Your task to perform on an android device: toggle improve location accuracy Image 0: 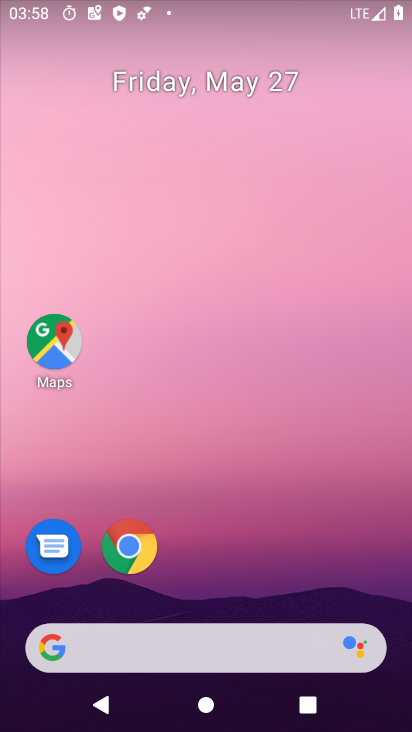
Step 0: drag from (385, 600) to (329, 167)
Your task to perform on an android device: toggle improve location accuracy Image 1: 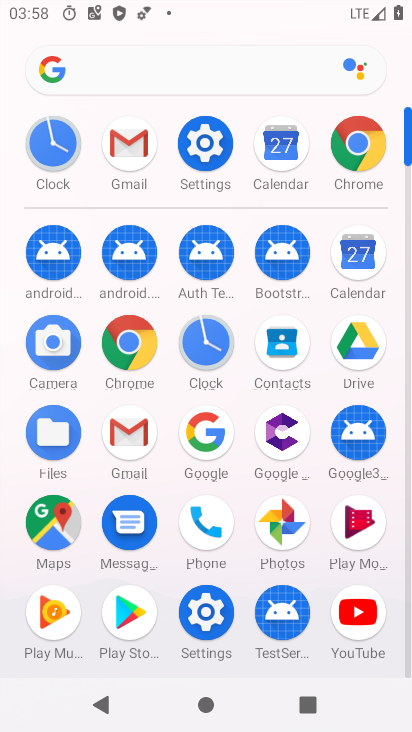
Step 1: click (207, 156)
Your task to perform on an android device: toggle improve location accuracy Image 2: 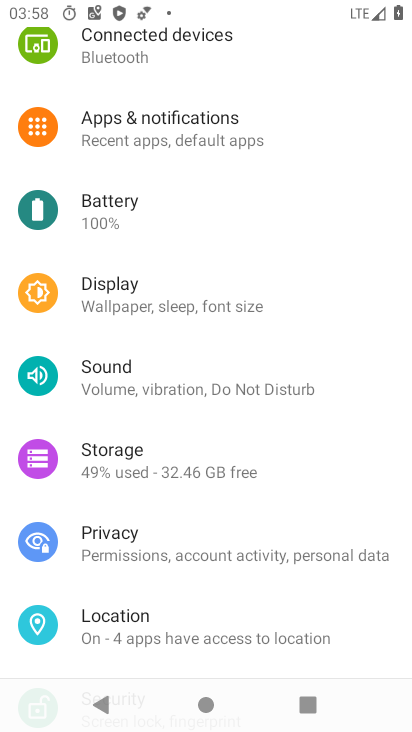
Step 2: click (115, 611)
Your task to perform on an android device: toggle improve location accuracy Image 3: 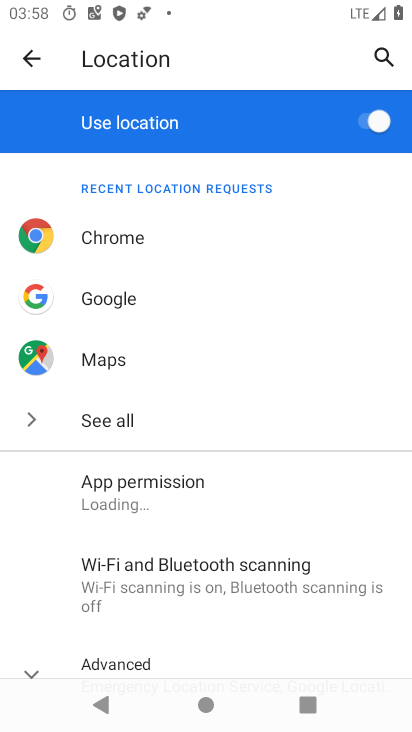
Step 3: drag from (313, 627) to (288, 282)
Your task to perform on an android device: toggle improve location accuracy Image 4: 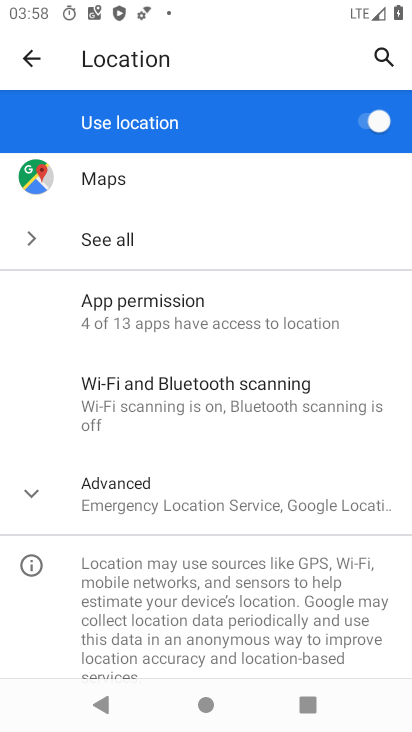
Step 4: drag from (149, 630) to (165, 366)
Your task to perform on an android device: toggle improve location accuracy Image 5: 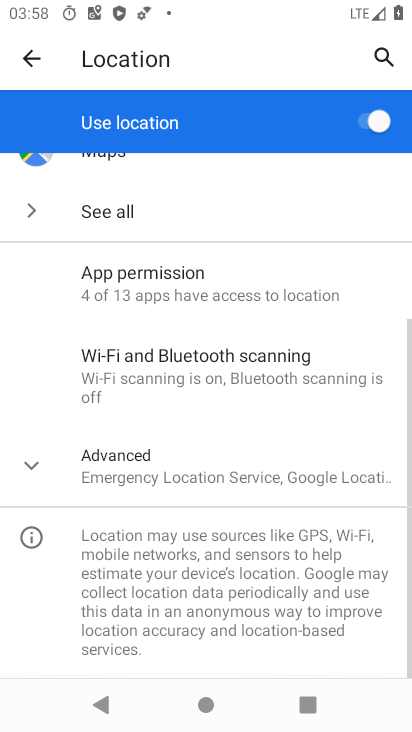
Step 5: click (34, 490)
Your task to perform on an android device: toggle improve location accuracy Image 6: 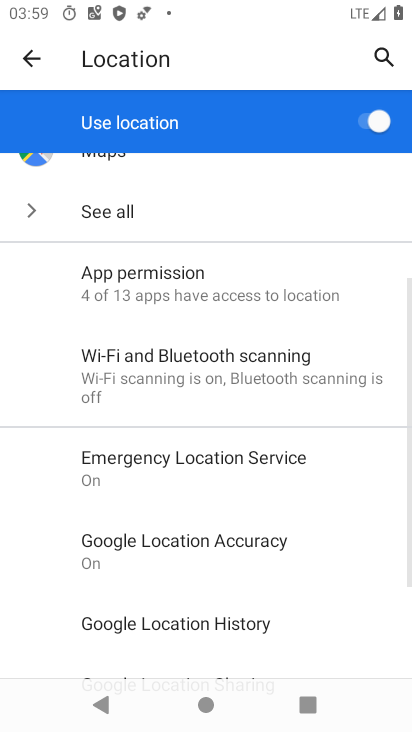
Step 6: drag from (331, 634) to (329, 421)
Your task to perform on an android device: toggle improve location accuracy Image 7: 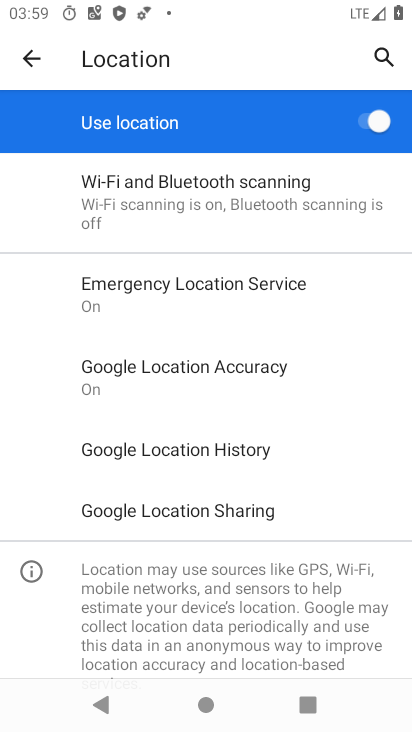
Step 7: click (194, 377)
Your task to perform on an android device: toggle improve location accuracy Image 8: 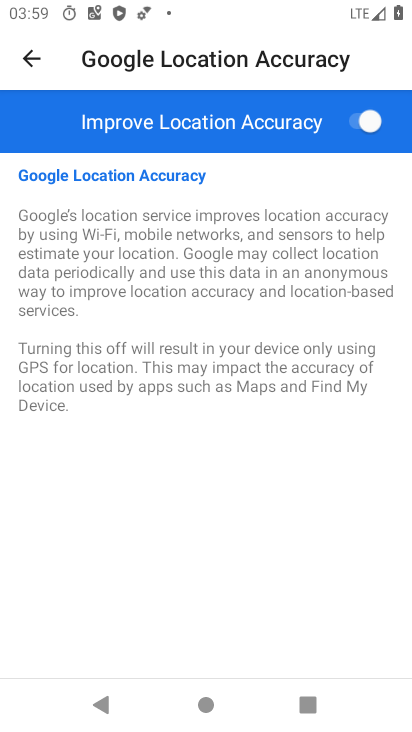
Step 8: click (354, 124)
Your task to perform on an android device: toggle improve location accuracy Image 9: 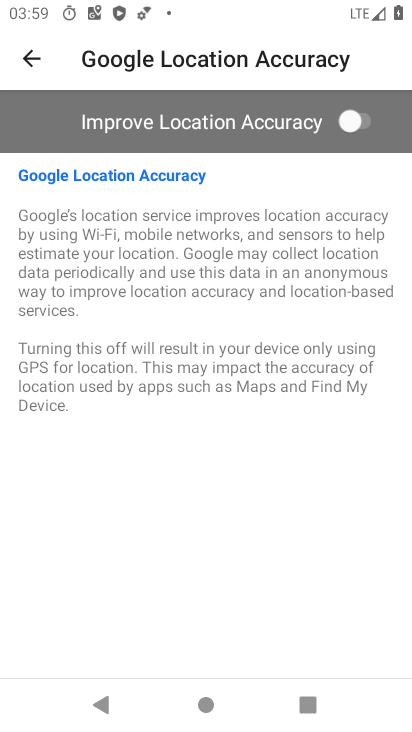
Step 9: task complete